Your task to perform on an android device: turn on notifications settings in the gmail app Image 0: 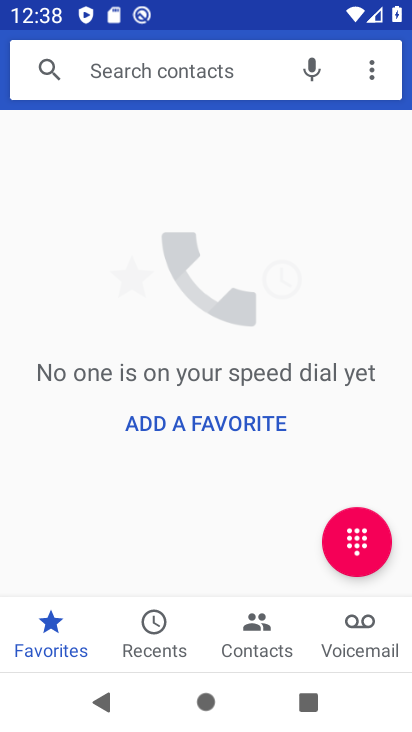
Step 0: press home button
Your task to perform on an android device: turn on notifications settings in the gmail app Image 1: 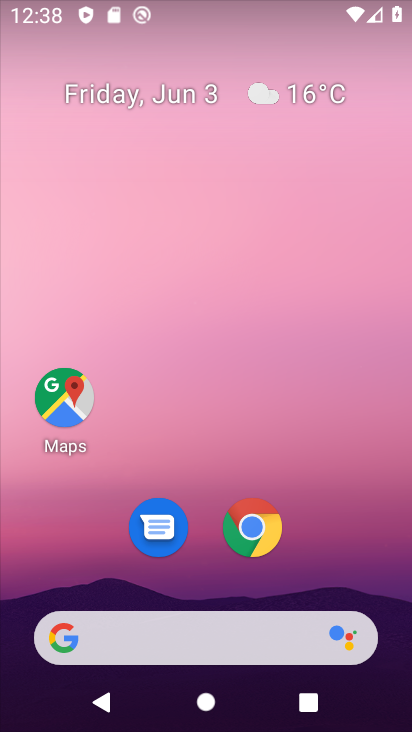
Step 1: drag from (325, 483) to (324, 120)
Your task to perform on an android device: turn on notifications settings in the gmail app Image 2: 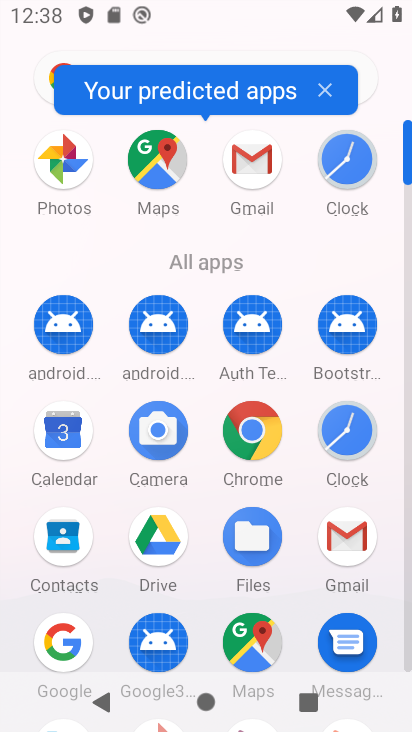
Step 2: click (244, 165)
Your task to perform on an android device: turn on notifications settings in the gmail app Image 3: 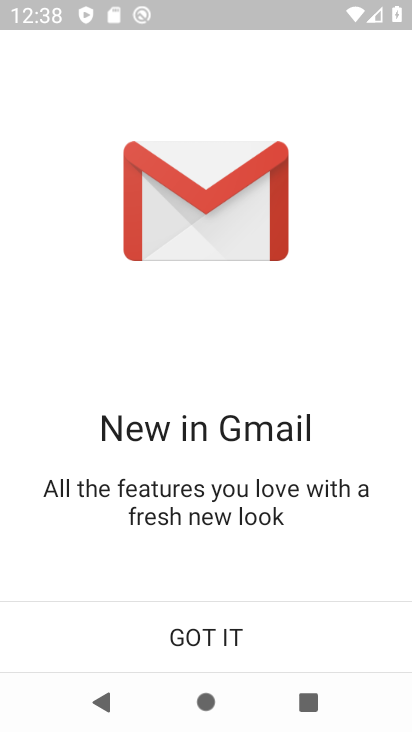
Step 3: click (225, 624)
Your task to perform on an android device: turn on notifications settings in the gmail app Image 4: 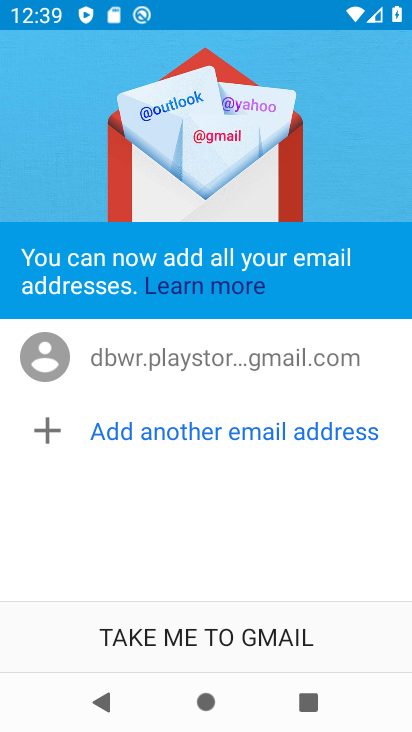
Step 4: click (259, 644)
Your task to perform on an android device: turn on notifications settings in the gmail app Image 5: 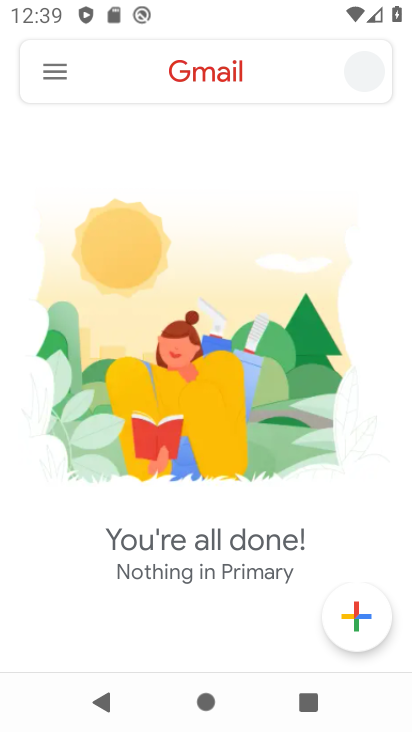
Step 5: click (60, 78)
Your task to perform on an android device: turn on notifications settings in the gmail app Image 6: 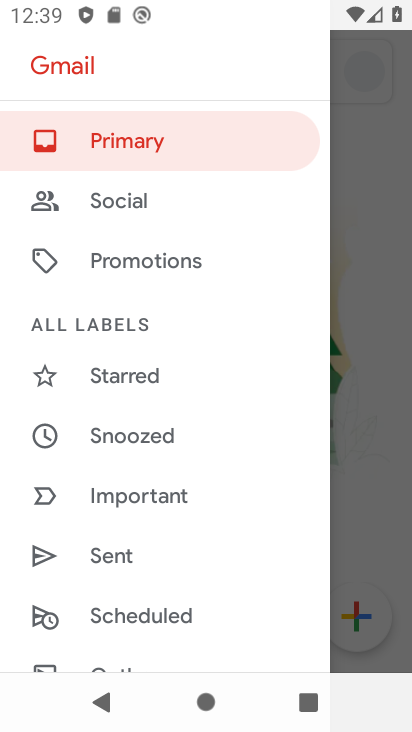
Step 6: drag from (221, 616) to (232, 9)
Your task to perform on an android device: turn on notifications settings in the gmail app Image 7: 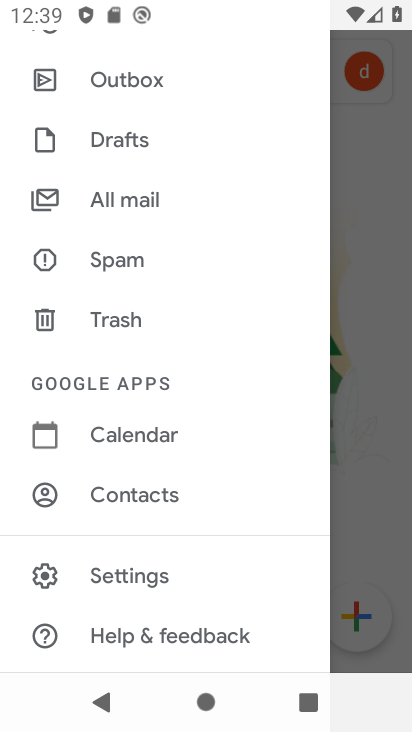
Step 7: click (142, 570)
Your task to perform on an android device: turn on notifications settings in the gmail app Image 8: 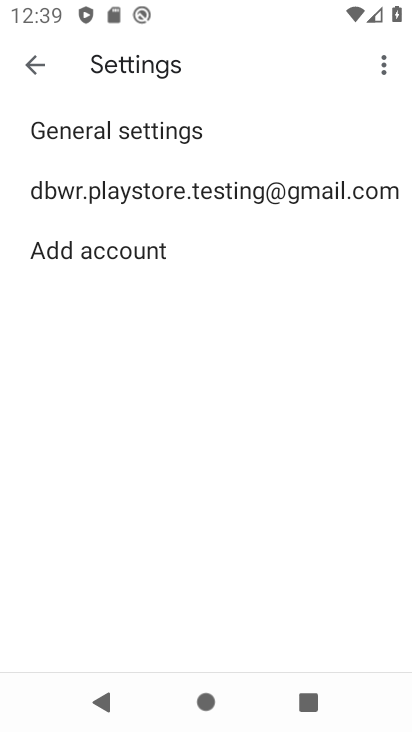
Step 8: click (156, 193)
Your task to perform on an android device: turn on notifications settings in the gmail app Image 9: 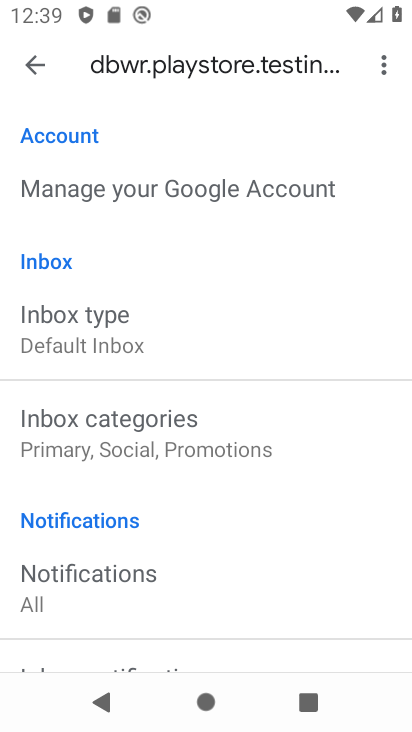
Step 9: drag from (240, 623) to (332, 179)
Your task to perform on an android device: turn on notifications settings in the gmail app Image 10: 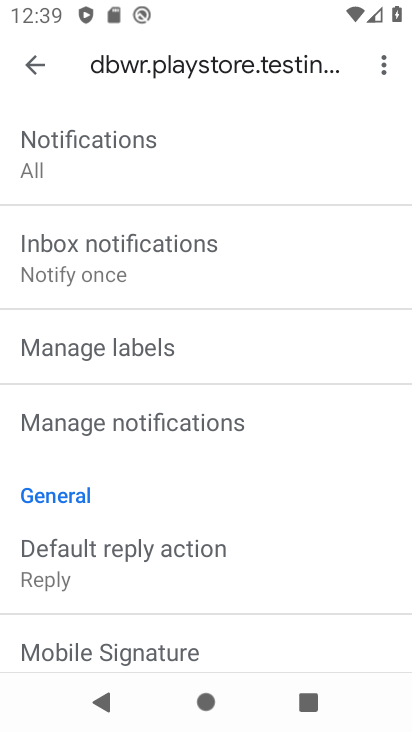
Step 10: click (216, 415)
Your task to perform on an android device: turn on notifications settings in the gmail app Image 11: 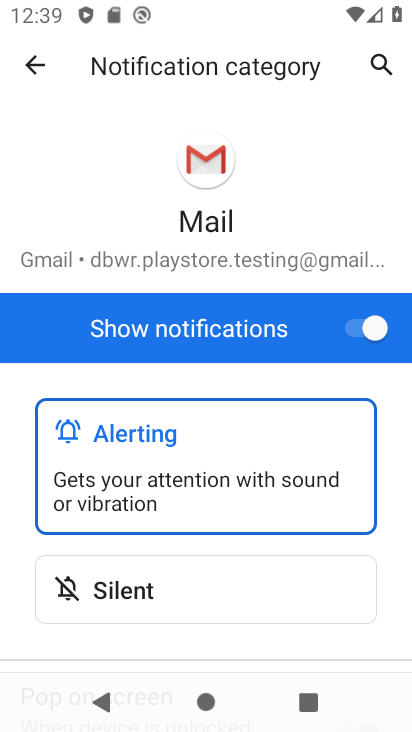
Step 11: task complete